Your task to perform on an android device: Open Android settings Image 0: 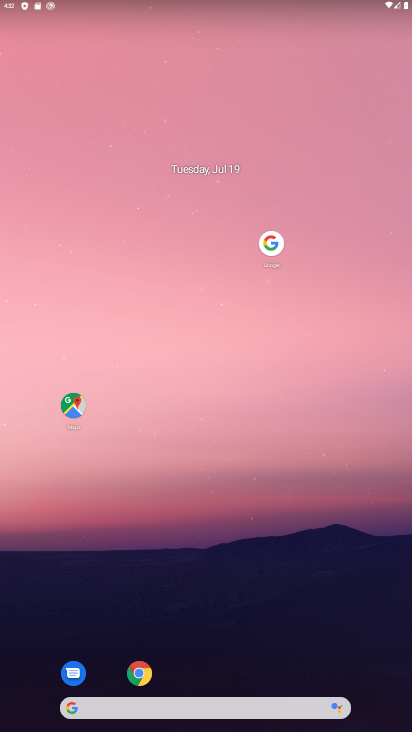
Step 0: press home button
Your task to perform on an android device: Open Android settings Image 1: 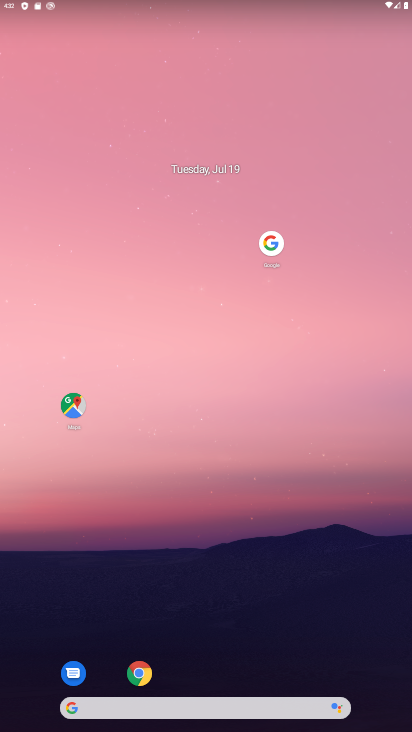
Step 1: drag from (243, 550) to (243, 20)
Your task to perform on an android device: Open Android settings Image 2: 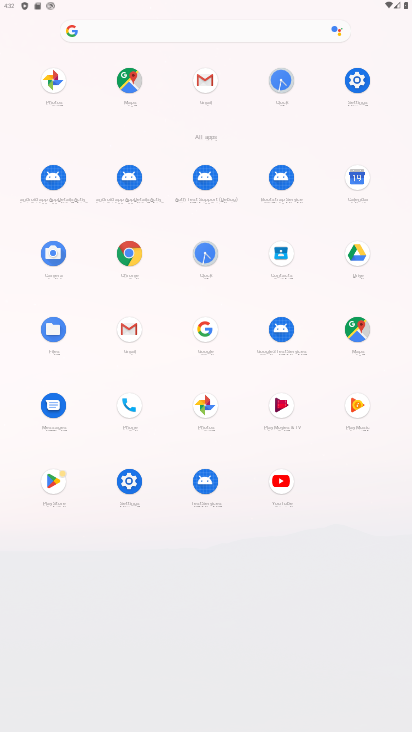
Step 2: click (368, 79)
Your task to perform on an android device: Open Android settings Image 3: 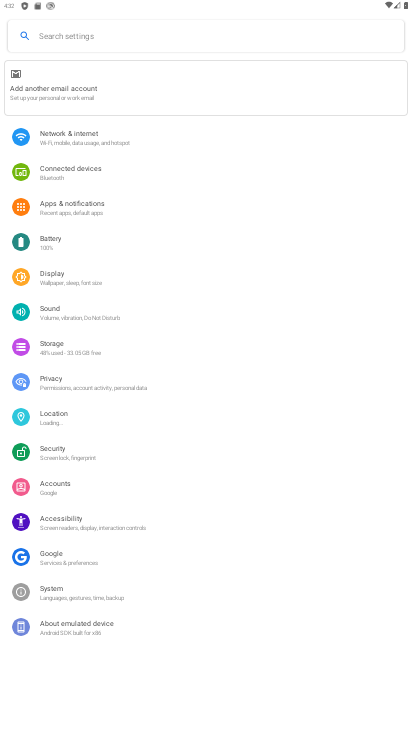
Step 3: task complete